Your task to perform on an android device: When is my next appointment? Image 0: 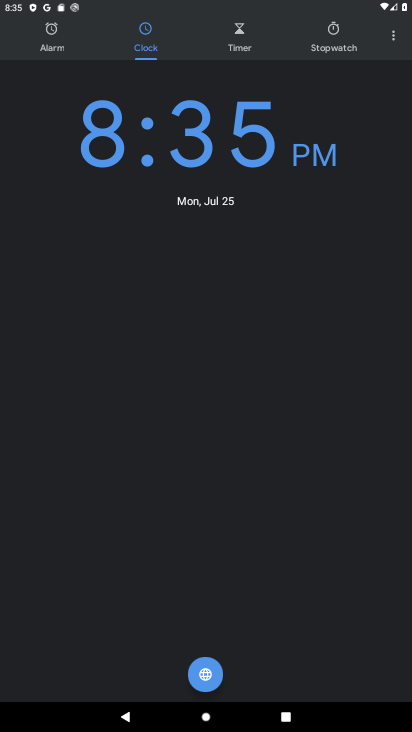
Step 0: press home button
Your task to perform on an android device: When is my next appointment? Image 1: 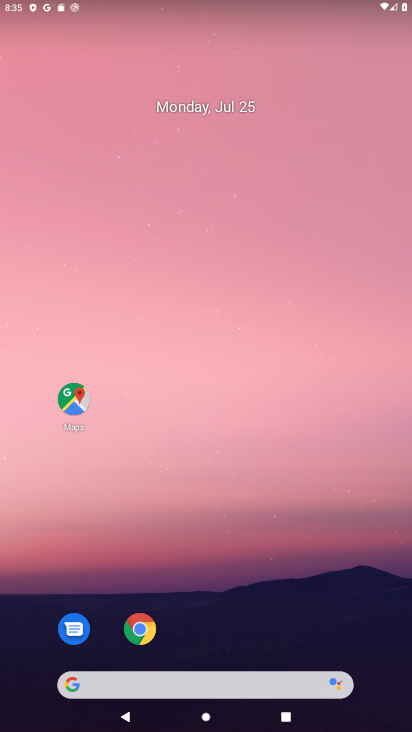
Step 1: click (187, 107)
Your task to perform on an android device: When is my next appointment? Image 2: 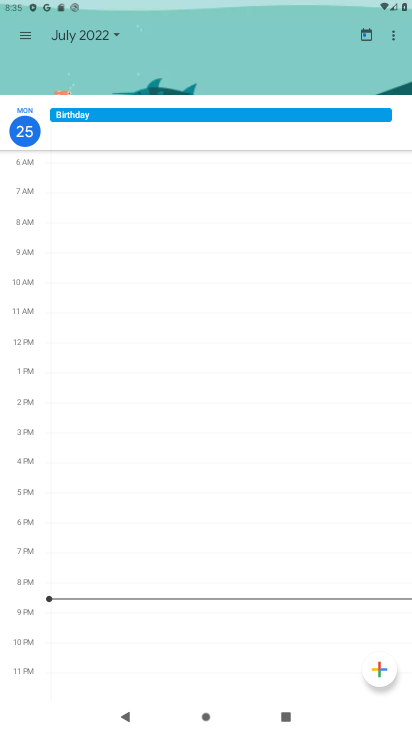
Step 2: task complete